Your task to perform on an android device: change the upload size in google photos Image 0: 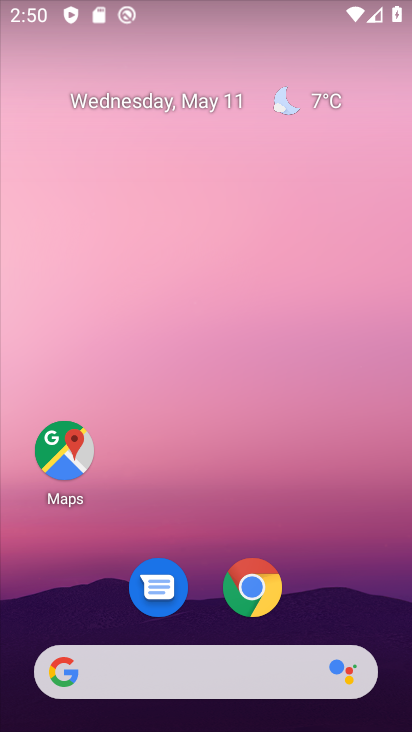
Step 0: drag from (70, 650) to (315, 15)
Your task to perform on an android device: change the upload size in google photos Image 1: 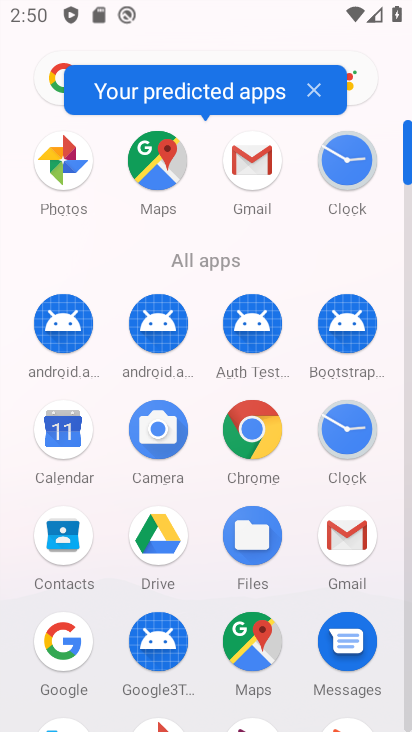
Step 1: drag from (184, 624) to (246, 388)
Your task to perform on an android device: change the upload size in google photos Image 2: 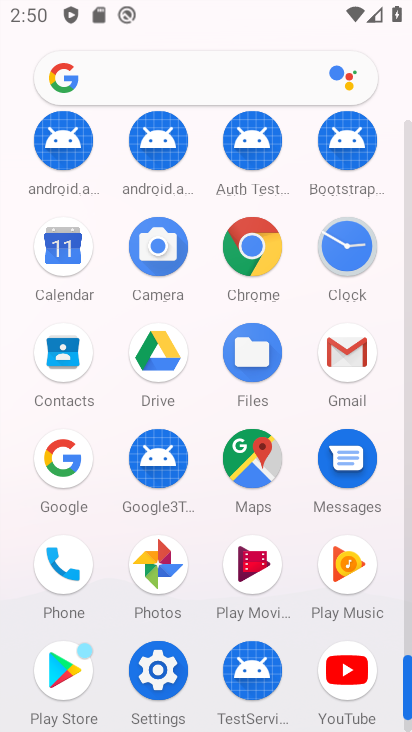
Step 2: click (168, 589)
Your task to perform on an android device: change the upload size in google photos Image 3: 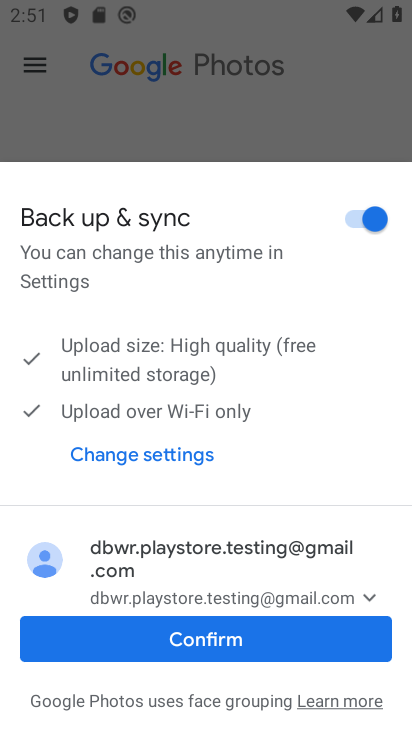
Step 3: click (215, 639)
Your task to perform on an android device: change the upload size in google photos Image 4: 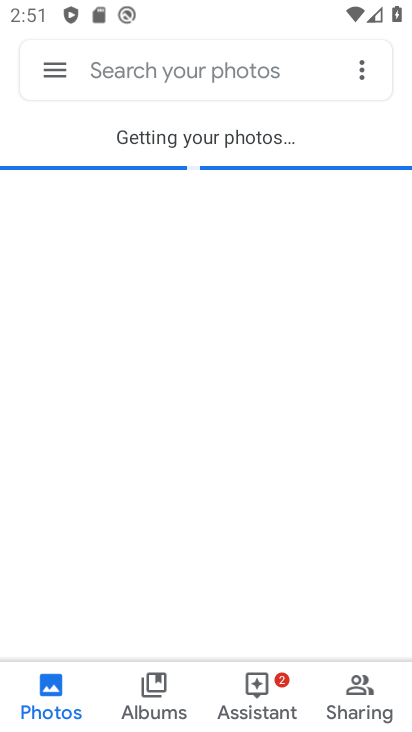
Step 4: click (50, 79)
Your task to perform on an android device: change the upload size in google photos Image 5: 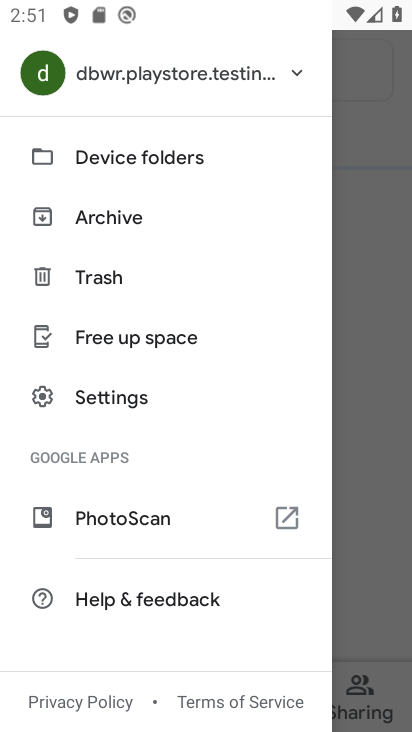
Step 5: click (143, 403)
Your task to perform on an android device: change the upload size in google photos Image 6: 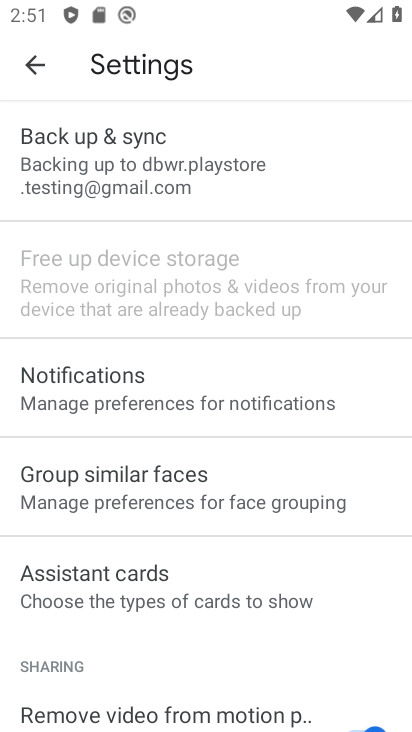
Step 6: click (169, 156)
Your task to perform on an android device: change the upload size in google photos Image 7: 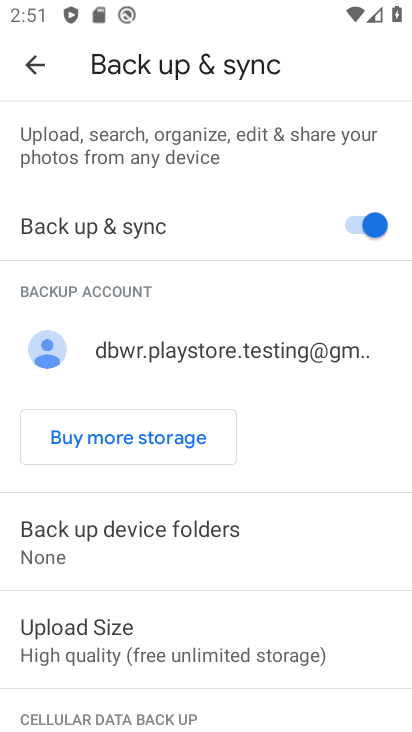
Step 7: drag from (200, 621) to (318, 303)
Your task to perform on an android device: change the upload size in google photos Image 8: 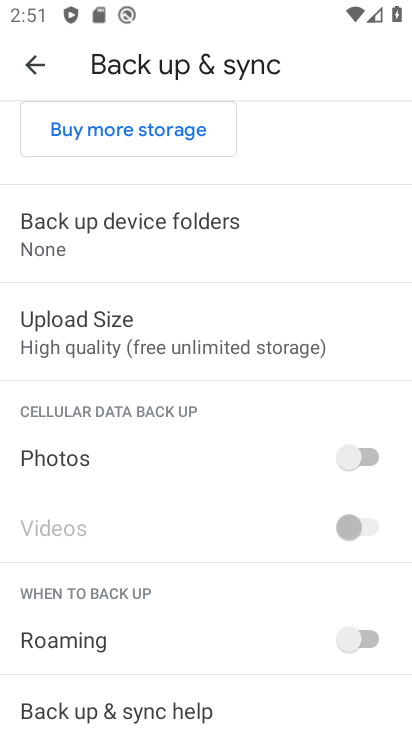
Step 8: drag from (149, 653) to (259, 299)
Your task to perform on an android device: change the upload size in google photos Image 9: 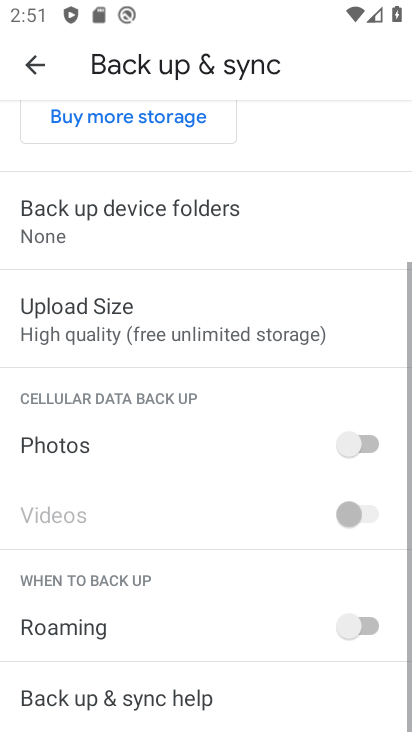
Step 9: click (190, 329)
Your task to perform on an android device: change the upload size in google photos Image 10: 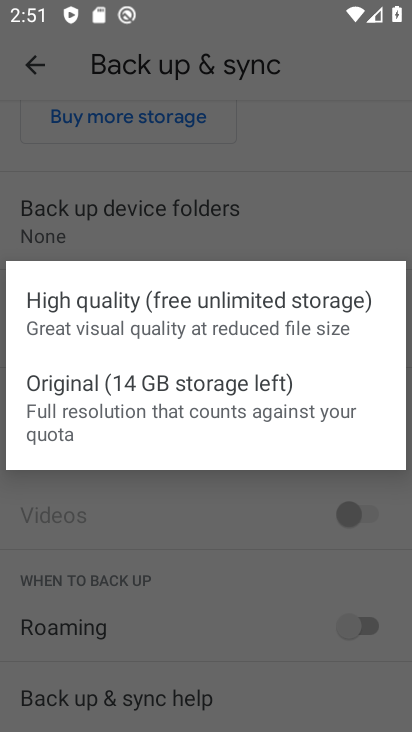
Step 10: click (257, 390)
Your task to perform on an android device: change the upload size in google photos Image 11: 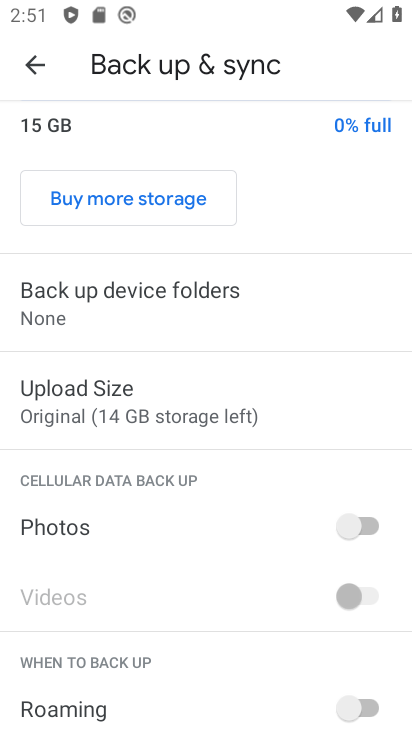
Step 11: task complete